Your task to perform on an android device: Open Yahoo.com Image 0: 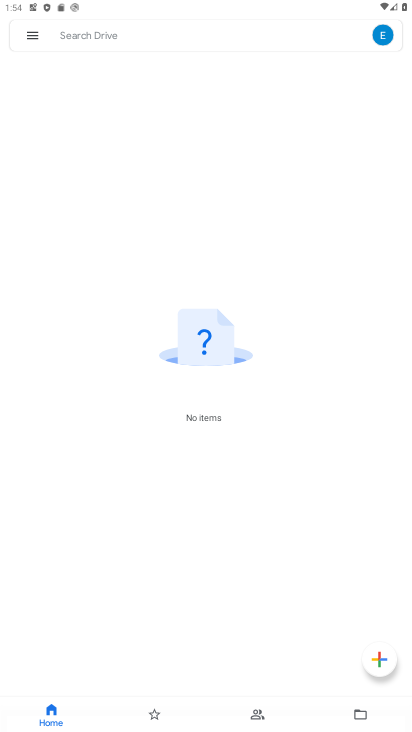
Step 0: press home button
Your task to perform on an android device: Open Yahoo.com Image 1: 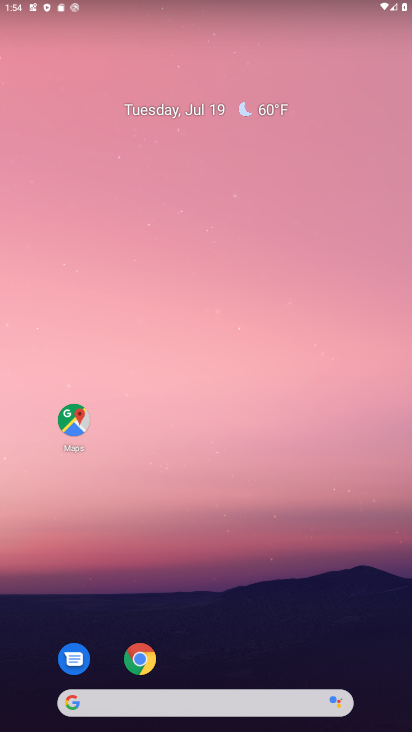
Step 1: click (155, 658)
Your task to perform on an android device: Open Yahoo.com Image 2: 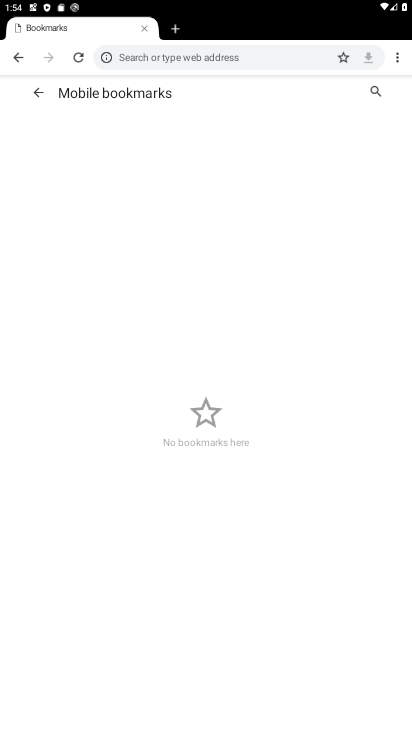
Step 2: click (169, 61)
Your task to perform on an android device: Open Yahoo.com Image 3: 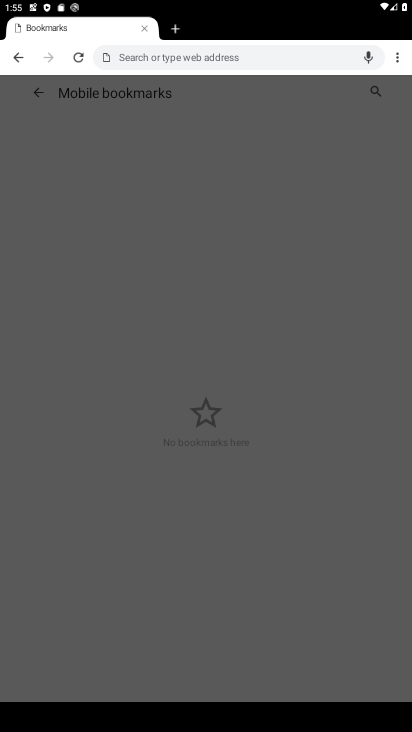
Step 3: type "yahoo.com"
Your task to perform on an android device: Open Yahoo.com Image 4: 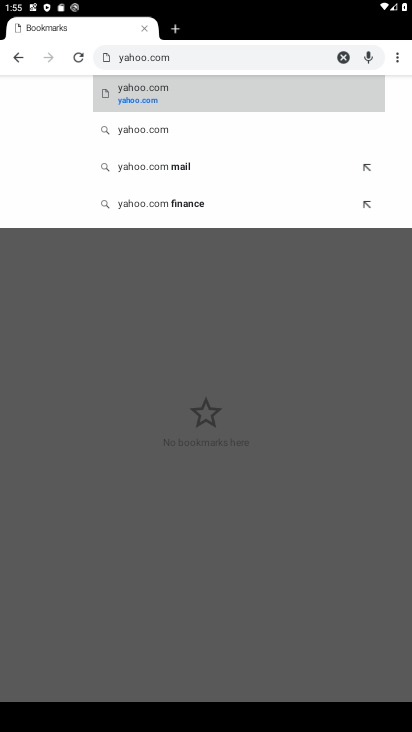
Step 4: click (127, 93)
Your task to perform on an android device: Open Yahoo.com Image 5: 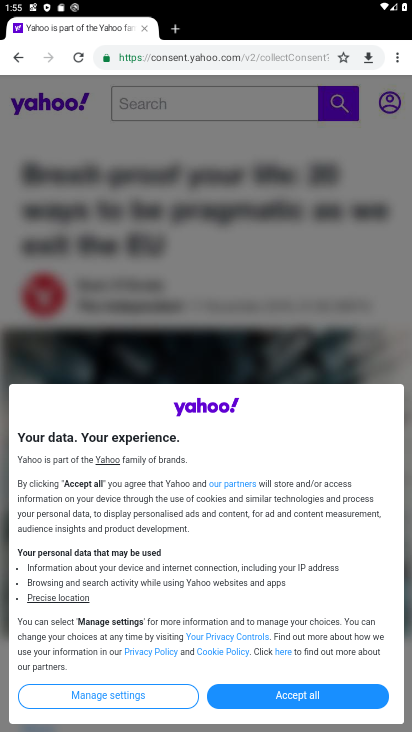
Step 5: click (199, 350)
Your task to perform on an android device: Open Yahoo.com Image 6: 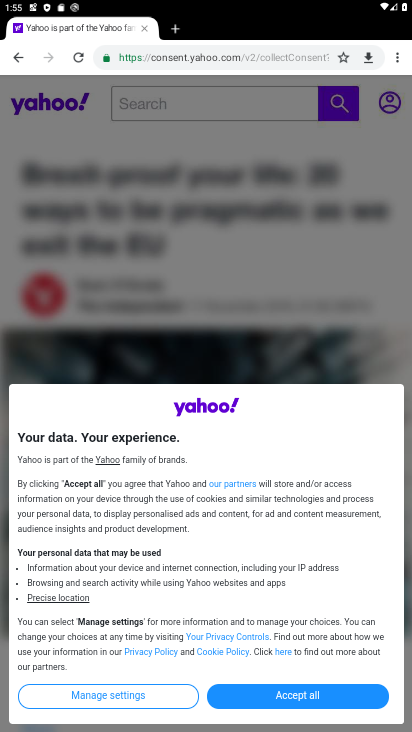
Step 6: task complete